Your task to perform on an android device: Do I have any events this weekend? Image 0: 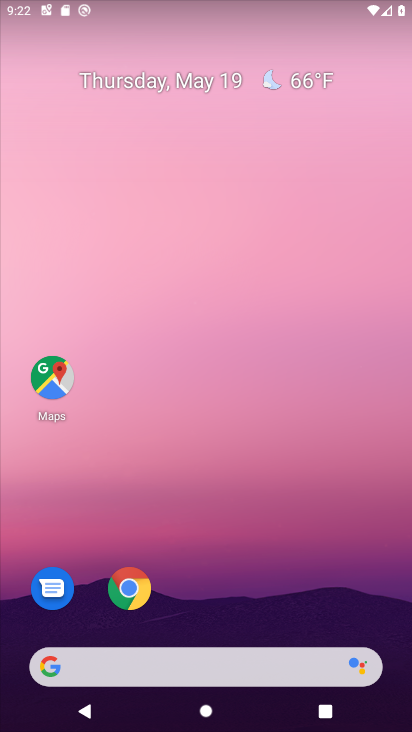
Step 0: drag from (355, 619) to (348, 184)
Your task to perform on an android device: Do I have any events this weekend? Image 1: 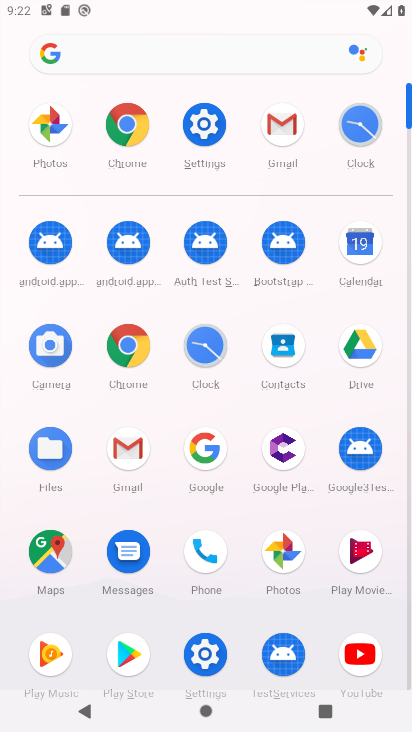
Step 1: click (364, 283)
Your task to perform on an android device: Do I have any events this weekend? Image 2: 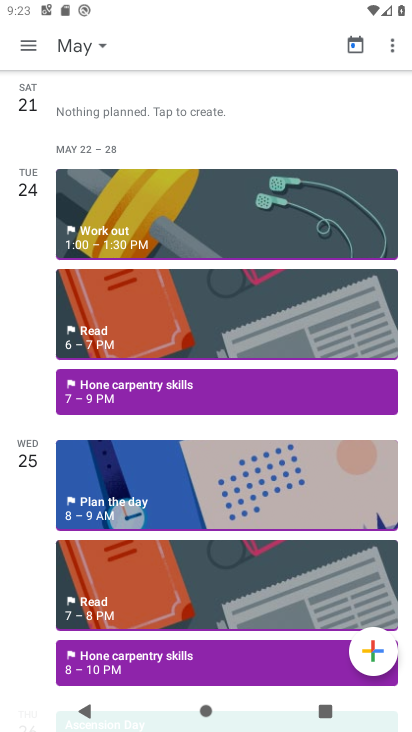
Step 2: click (111, 45)
Your task to perform on an android device: Do I have any events this weekend? Image 3: 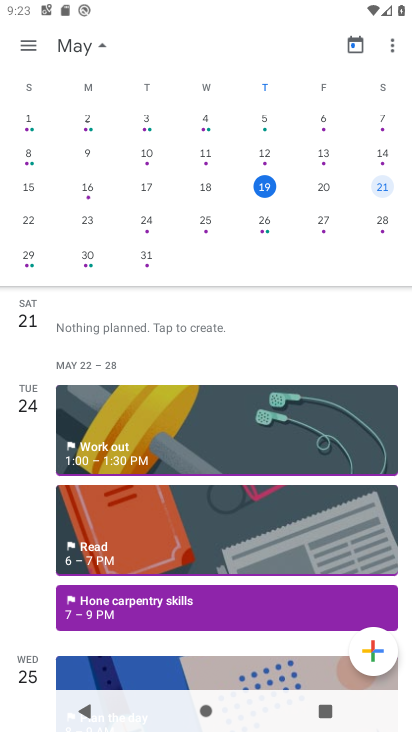
Step 3: click (32, 222)
Your task to perform on an android device: Do I have any events this weekend? Image 4: 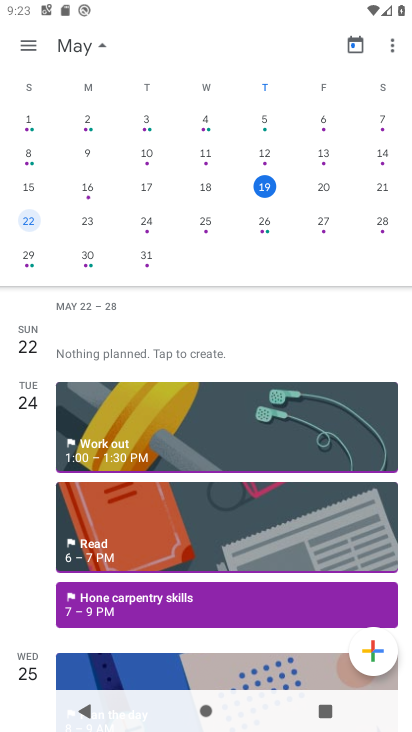
Step 4: click (133, 352)
Your task to perform on an android device: Do I have any events this weekend? Image 5: 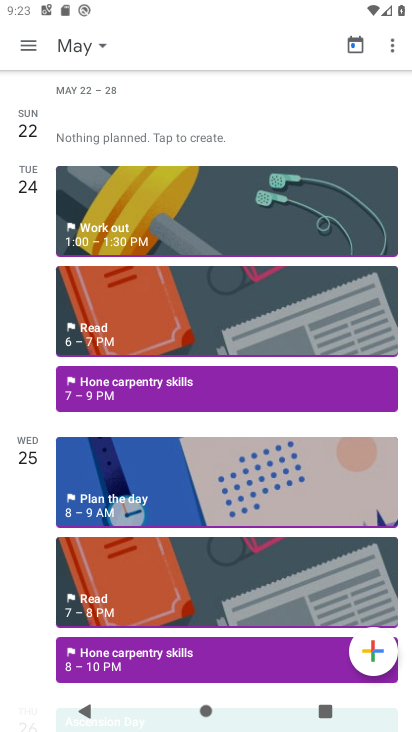
Step 5: task complete